Your task to perform on an android device: turn off wifi Image 0: 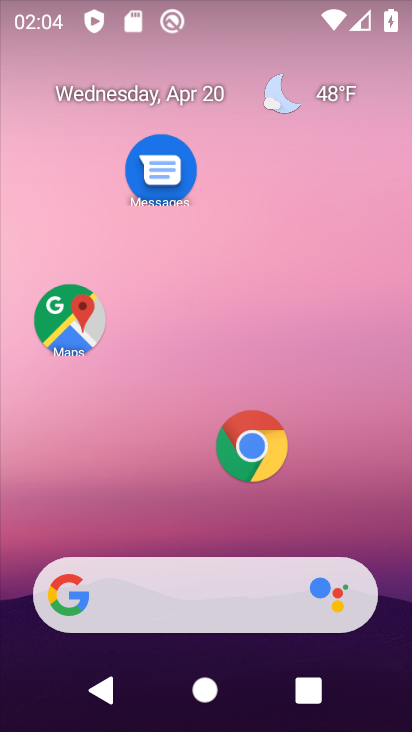
Step 0: drag from (219, 465) to (270, 36)
Your task to perform on an android device: turn off wifi Image 1: 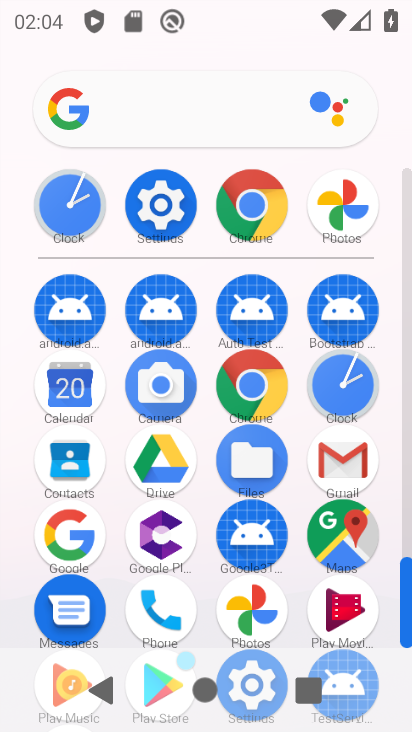
Step 1: click (154, 199)
Your task to perform on an android device: turn off wifi Image 2: 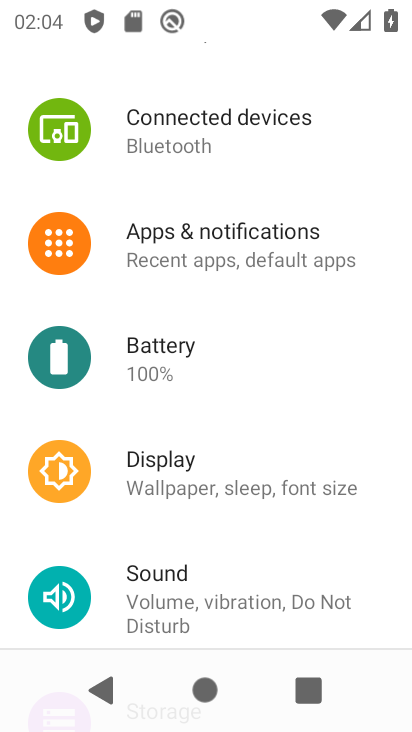
Step 2: drag from (190, 170) to (182, 523)
Your task to perform on an android device: turn off wifi Image 3: 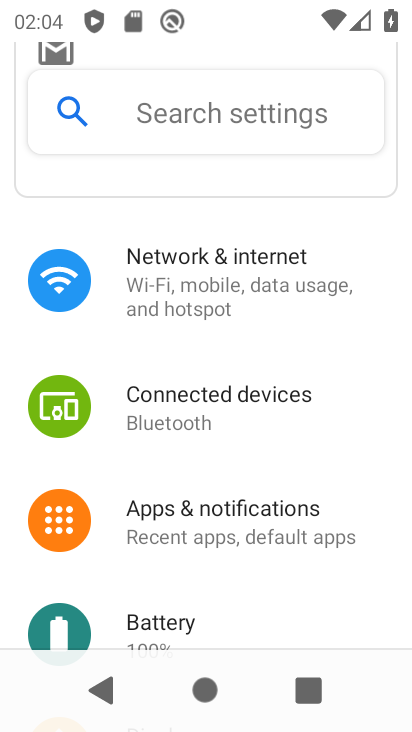
Step 3: click (173, 284)
Your task to perform on an android device: turn off wifi Image 4: 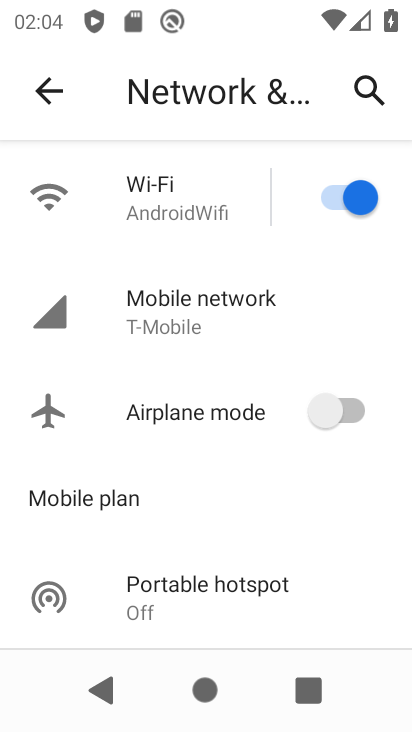
Step 4: click (333, 195)
Your task to perform on an android device: turn off wifi Image 5: 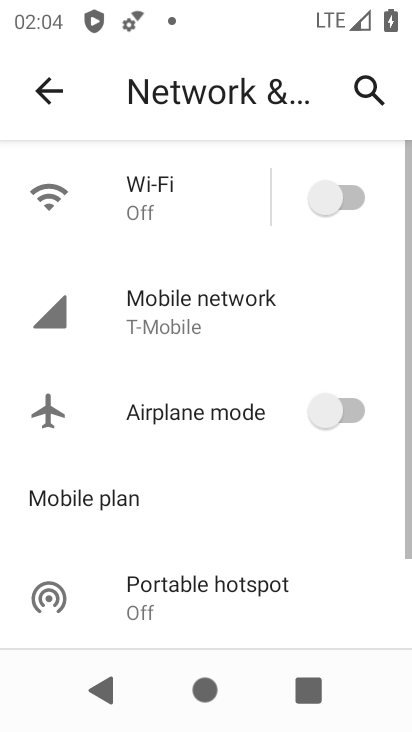
Step 5: task complete